Your task to perform on an android device: turn pop-ups off in chrome Image 0: 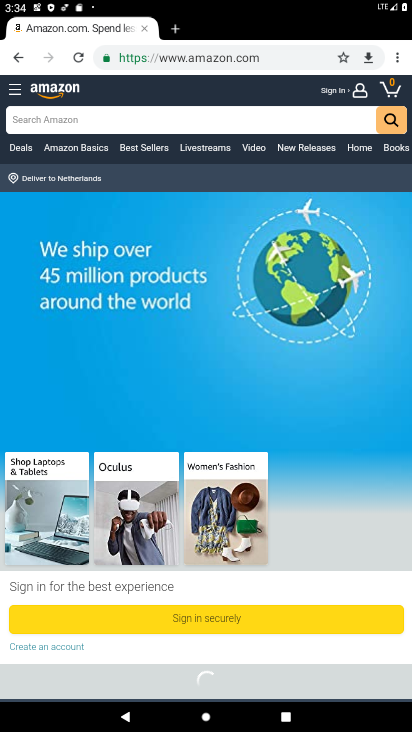
Step 0: press home button
Your task to perform on an android device: turn pop-ups off in chrome Image 1: 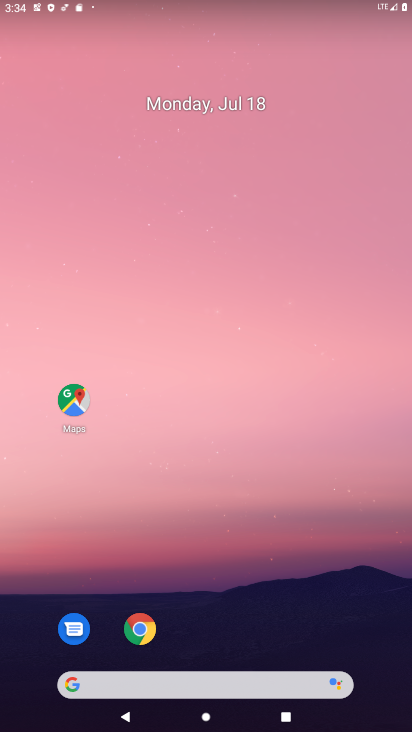
Step 1: click (147, 622)
Your task to perform on an android device: turn pop-ups off in chrome Image 2: 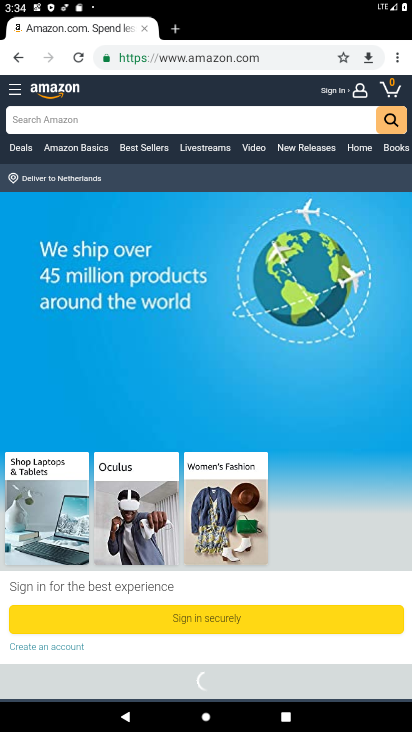
Step 2: click (396, 54)
Your task to perform on an android device: turn pop-ups off in chrome Image 3: 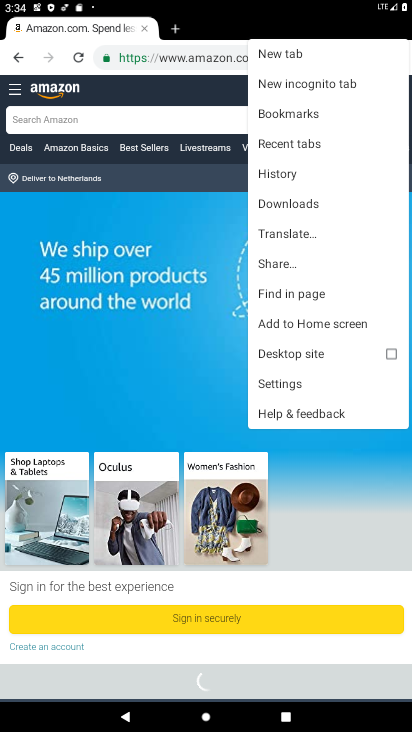
Step 3: click (276, 386)
Your task to perform on an android device: turn pop-ups off in chrome Image 4: 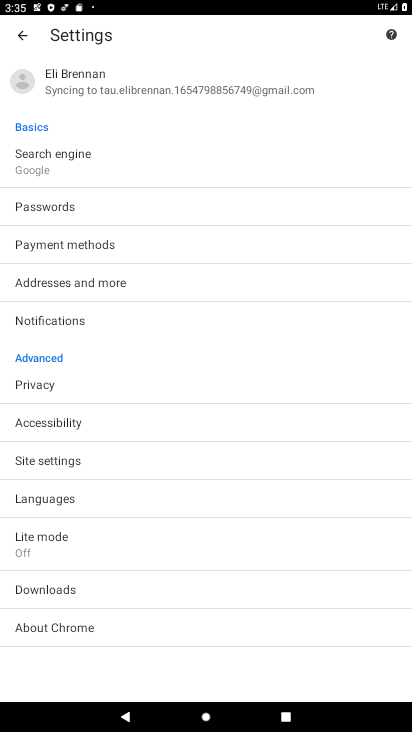
Step 4: click (46, 461)
Your task to perform on an android device: turn pop-ups off in chrome Image 5: 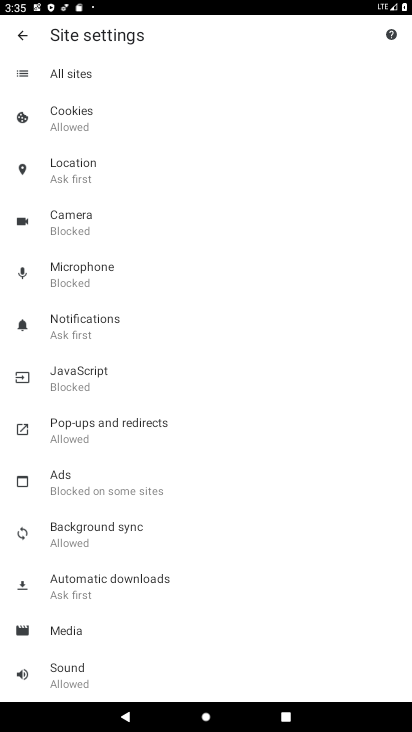
Step 5: click (99, 436)
Your task to perform on an android device: turn pop-ups off in chrome Image 6: 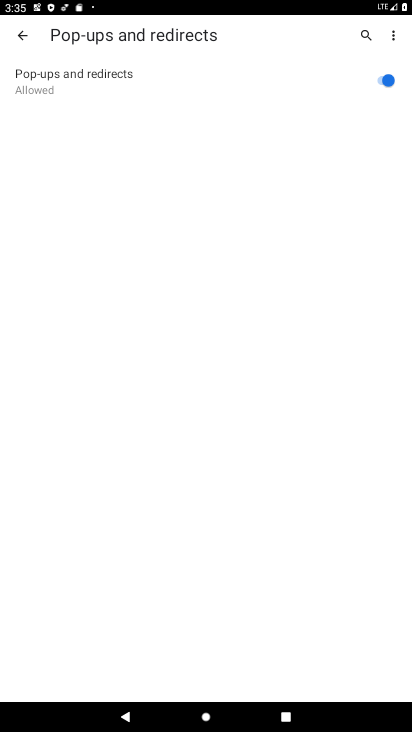
Step 6: click (362, 70)
Your task to perform on an android device: turn pop-ups off in chrome Image 7: 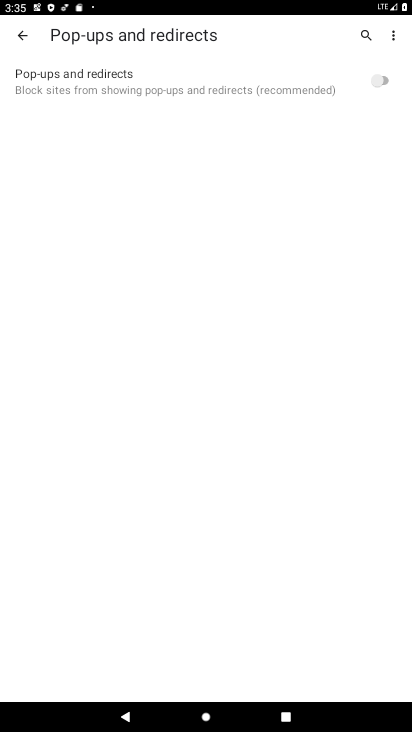
Step 7: task complete